Your task to perform on an android device: turn pop-ups off in chrome Image 0: 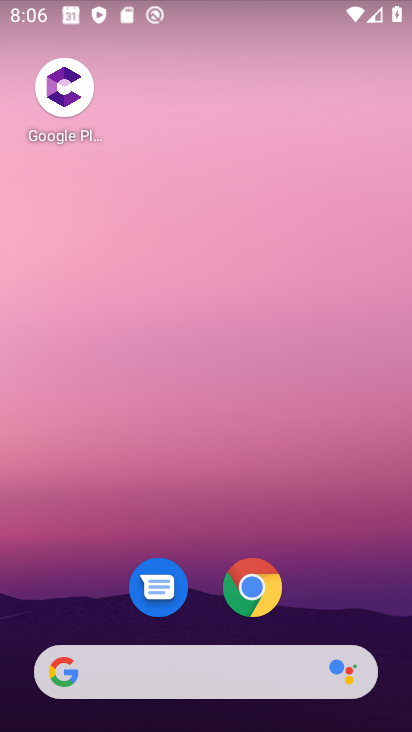
Step 0: click (257, 582)
Your task to perform on an android device: turn pop-ups off in chrome Image 1: 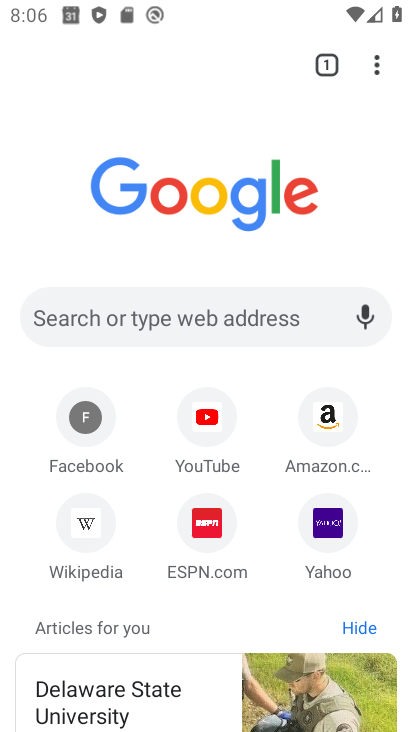
Step 1: drag from (377, 73) to (126, 533)
Your task to perform on an android device: turn pop-ups off in chrome Image 2: 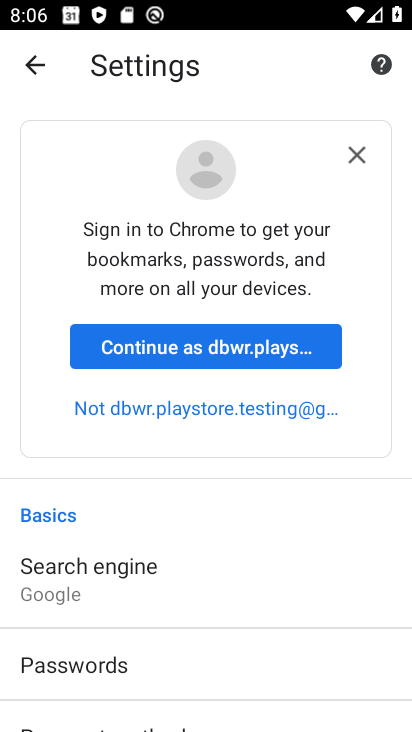
Step 2: drag from (134, 625) to (143, 181)
Your task to perform on an android device: turn pop-ups off in chrome Image 3: 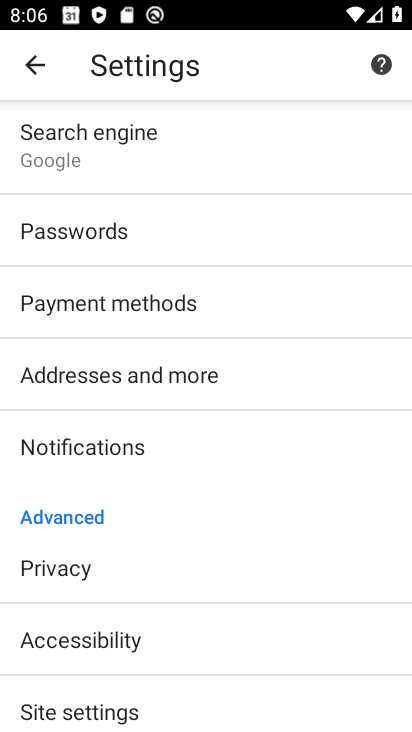
Step 3: drag from (172, 608) to (297, 337)
Your task to perform on an android device: turn pop-ups off in chrome Image 4: 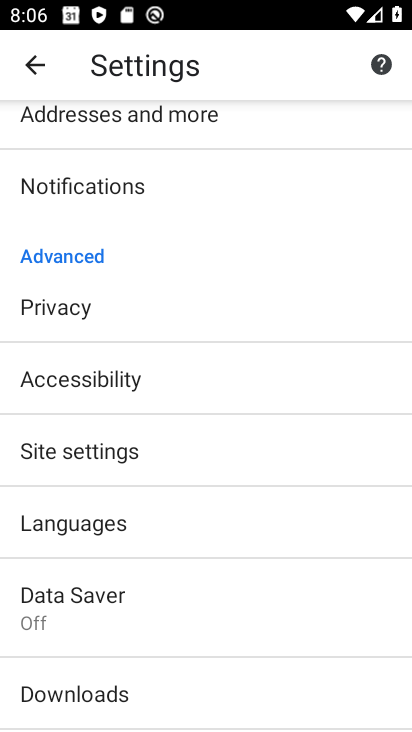
Step 4: click (135, 451)
Your task to perform on an android device: turn pop-ups off in chrome Image 5: 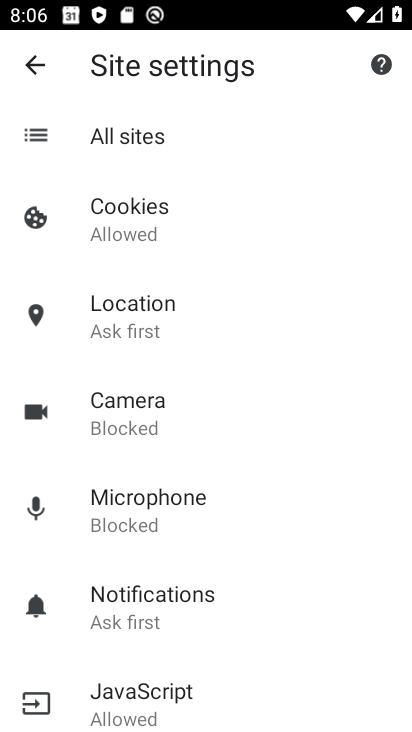
Step 5: drag from (188, 566) to (184, 235)
Your task to perform on an android device: turn pop-ups off in chrome Image 6: 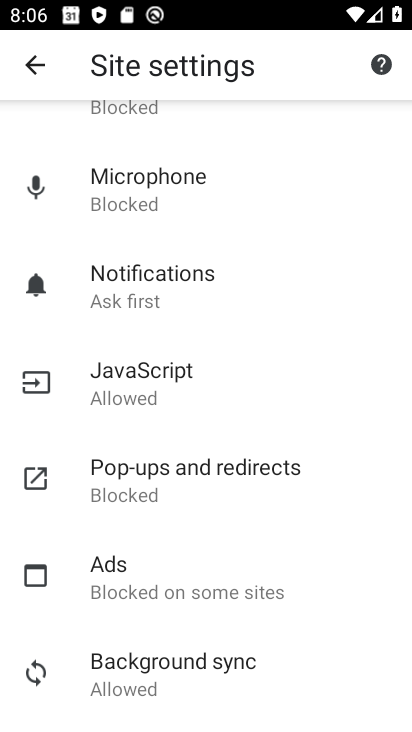
Step 6: click (110, 489)
Your task to perform on an android device: turn pop-ups off in chrome Image 7: 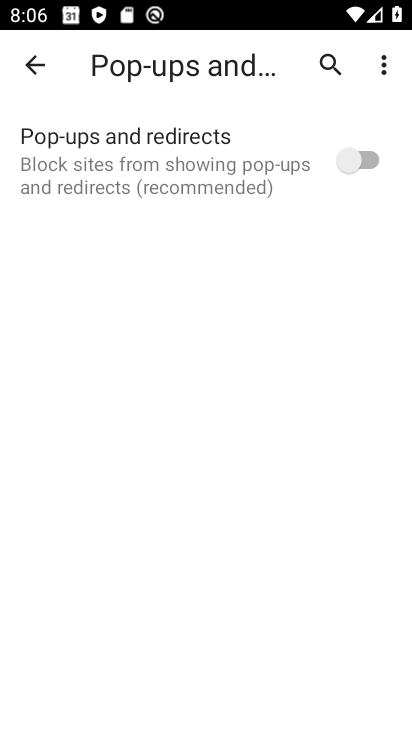
Step 7: task complete